Your task to perform on an android device: Open calendar and show me the first week of next month Image 0: 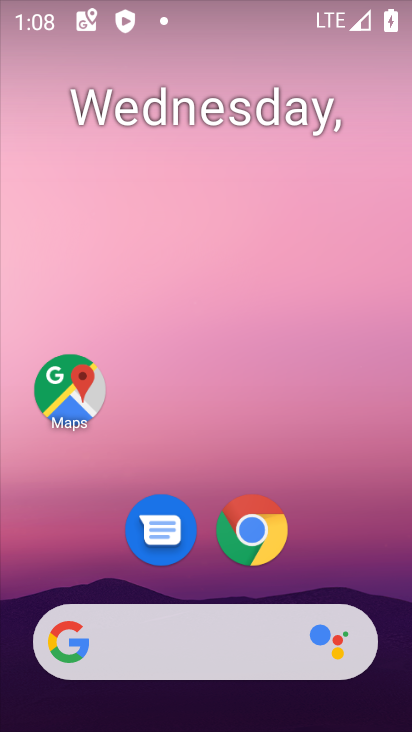
Step 0: drag from (336, 548) to (309, 90)
Your task to perform on an android device: Open calendar and show me the first week of next month Image 1: 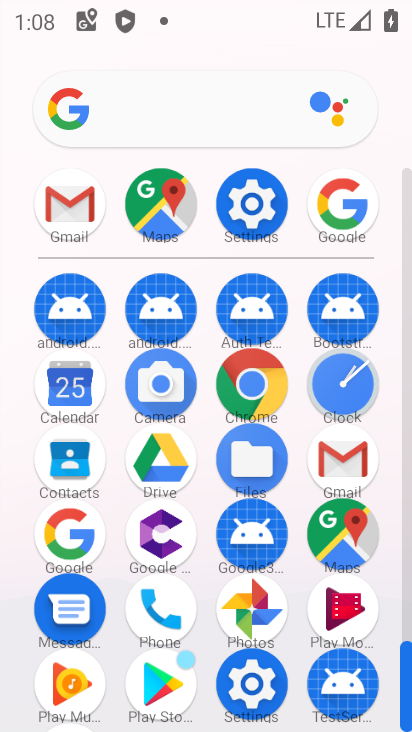
Step 1: click (78, 411)
Your task to perform on an android device: Open calendar and show me the first week of next month Image 2: 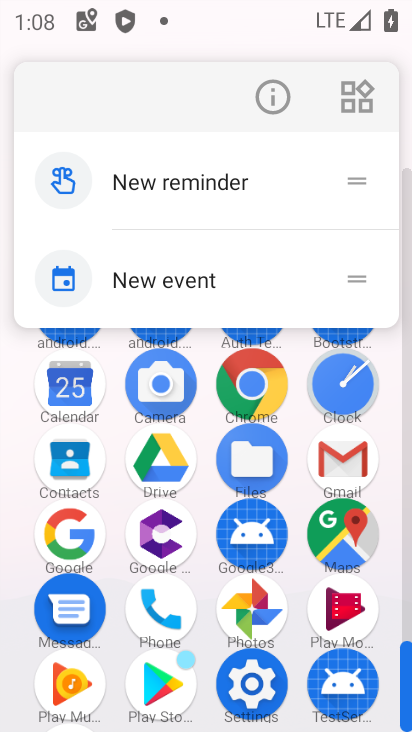
Step 2: click (83, 391)
Your task to perform on an android device: Open calendar and show me the first week of next month Image 3: 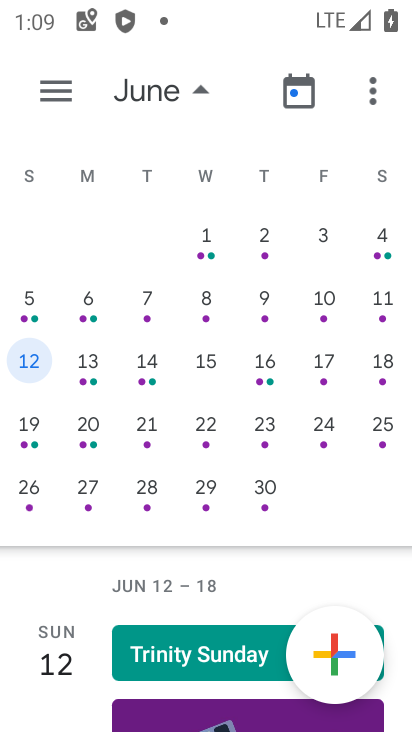
Step 3: click (207, 233)
Your task to perform on an android device: Open calendar and show me the first week of next month Image 4: 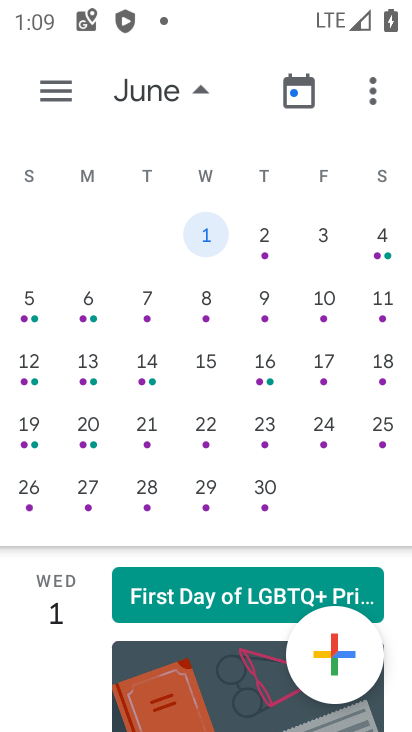
Step 4: task complete